Your task to perform on an android device: see tabs open on other devices in the chrome app Image 0: 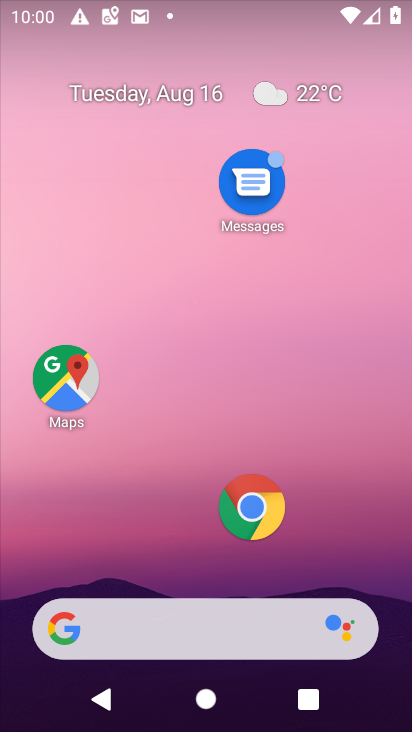
Step 0: click (263, 502)
Your task to perform on an android device: see tabs open on other devices in the chrome app Image 1: 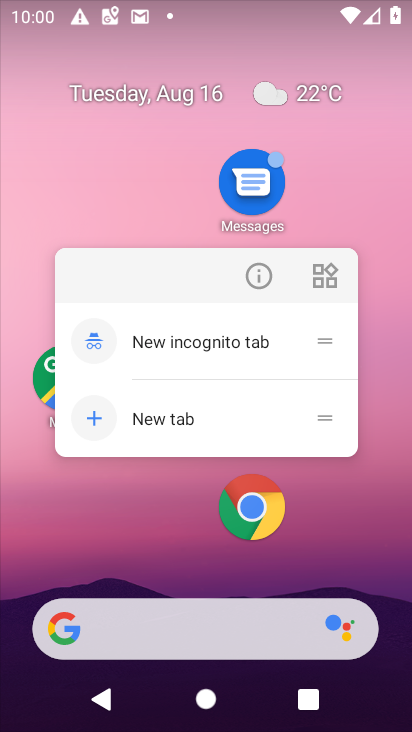
Step 1: click (263, 502)
Your task to perform on an android device: see tabs open on other devices in the chrome app Image 2: 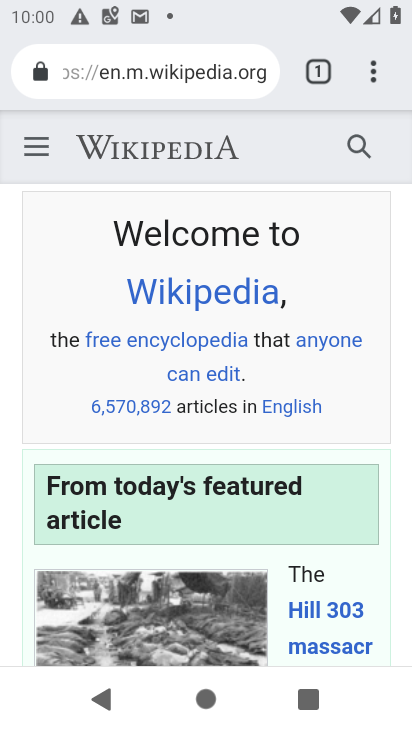
Step 2: task complete